Your task to perform on an android device: show emergency info Image 0: 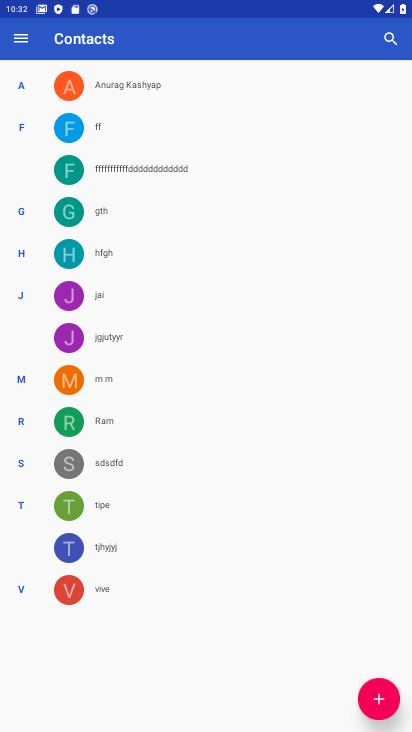
Step 0: press home button
Your task to perform on an android device: show emergency info Image 1: 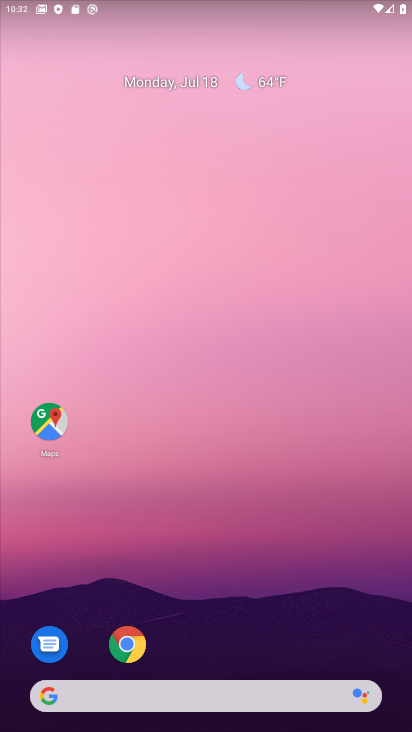
Step 1: drag from (266, 634) to (248, 33)
Your task to perform on an android device: show emergency info Image 2: 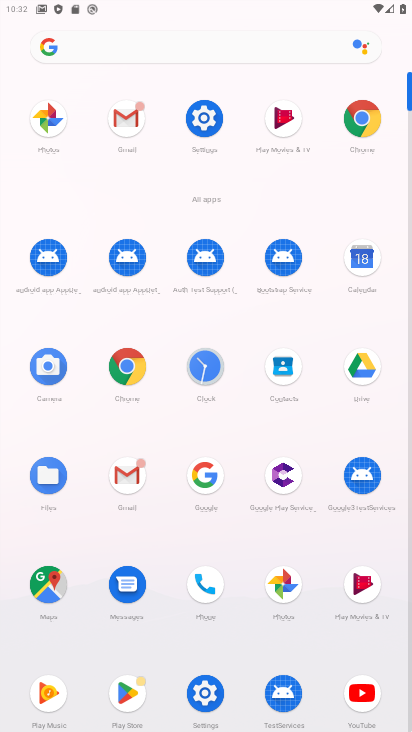
Step 2: click (196, 110)
Your task to perform on an android device: show emergency info Image 3: 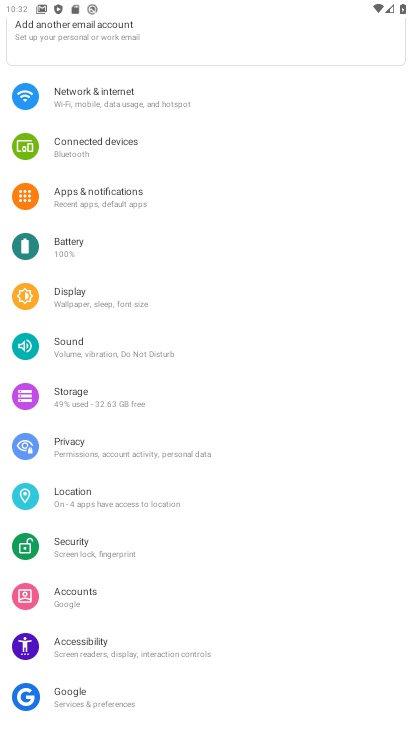
Step 3: drag from (146, 641) to (161, 219)
Your task to perform on an android device: show emergency info Image 4: 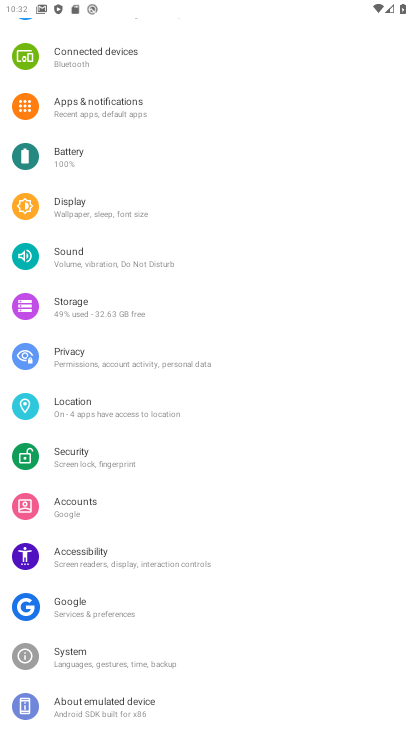
Step 4: click (104, 689)
Your task to perform on an android device: show emergency info Image 5: 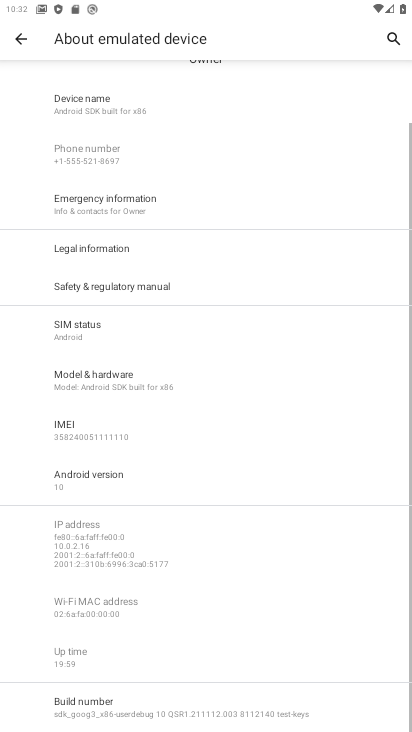
Step 5: click (124, 198)
Your task to perform on an android device: show emergency info Image 6: 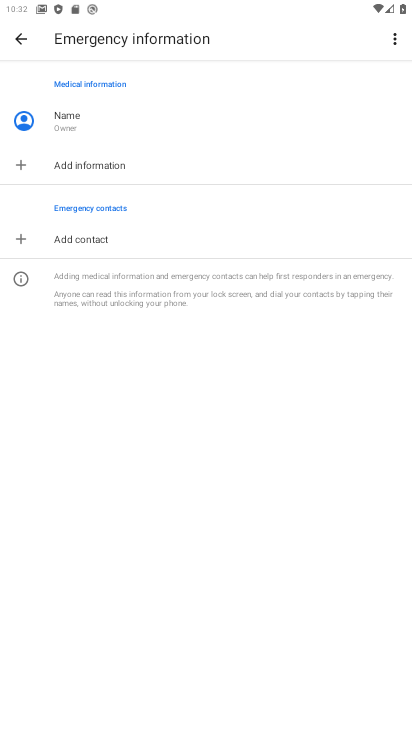
Step 6: task complete